Your task to perform on an android device: Search for "usb-c to usb-a" on amazon, select the first entry, add it to the cart, then select checkout. Image 0: 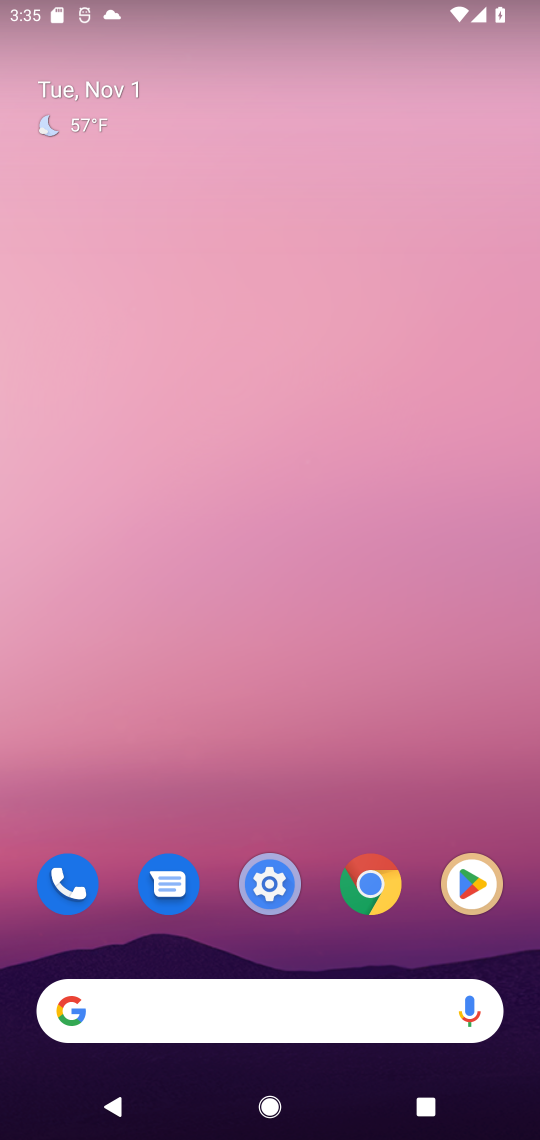
Step 0: click (102, 1015)
Your task to perform on an android device: Search for "usb-c to usb-a" on amazon, select the first entry, add it to the cart, then select checkout. Image 1: 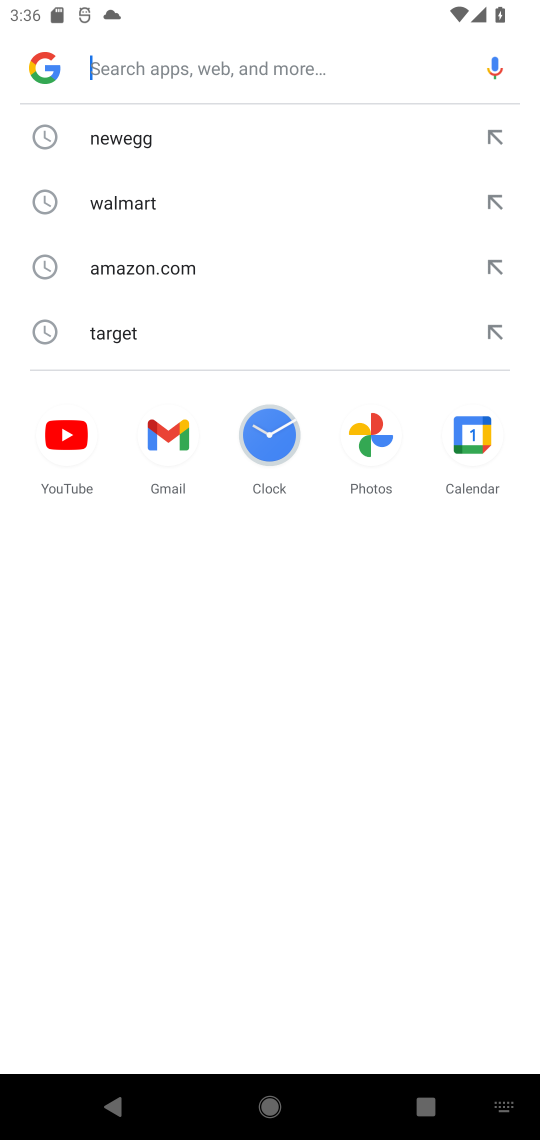
Step 1: type "amazon"
Your task to perform on an android device: Search for "usb-c to usb-a" on amazon, select the first entry, add it to the cart, then select checkout. Image 2: 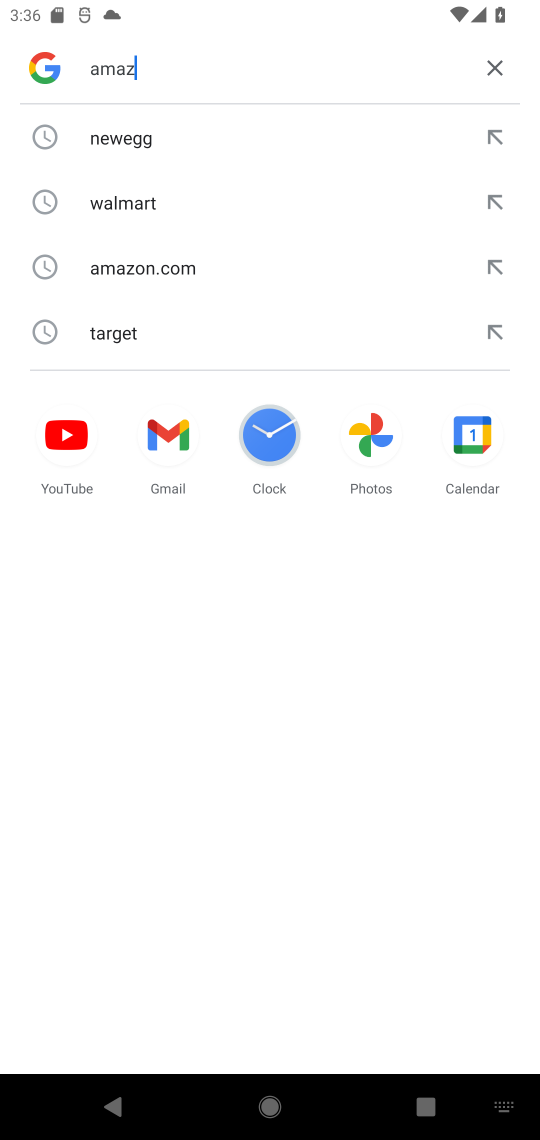
Step 2: press enter
Your task to perform on an android device: Search for "usb-c to usb-a" on amazon, select the first entry, add it to the cart, then select checkout. Image 3: 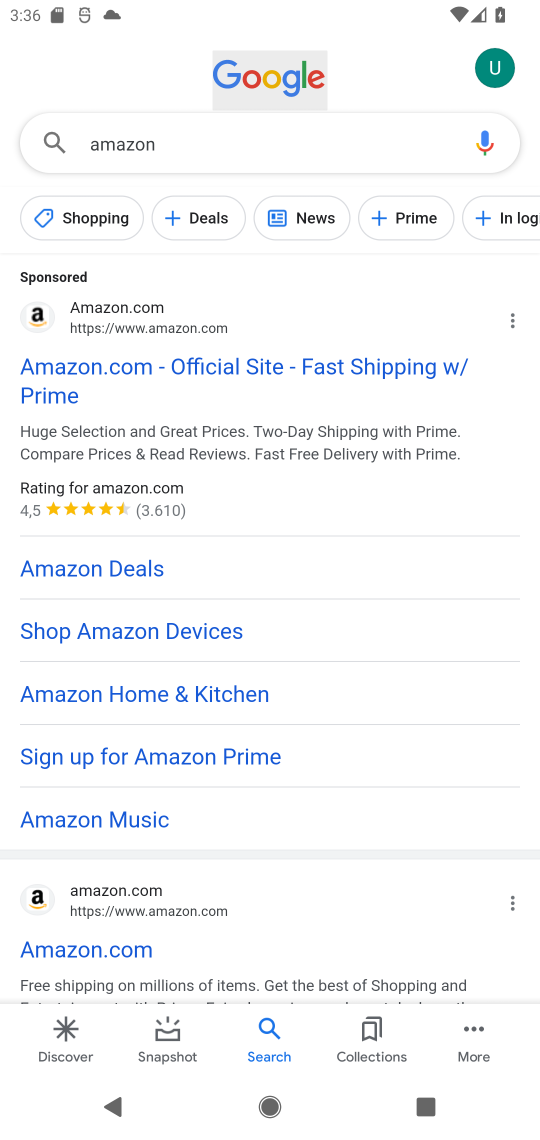
Step 3: click (126, 367)
Your task to perform on an android device: Search for "usb-c to usb-a" on amazon, select the first entry, add it to the cart, then select checkout. Image 4: 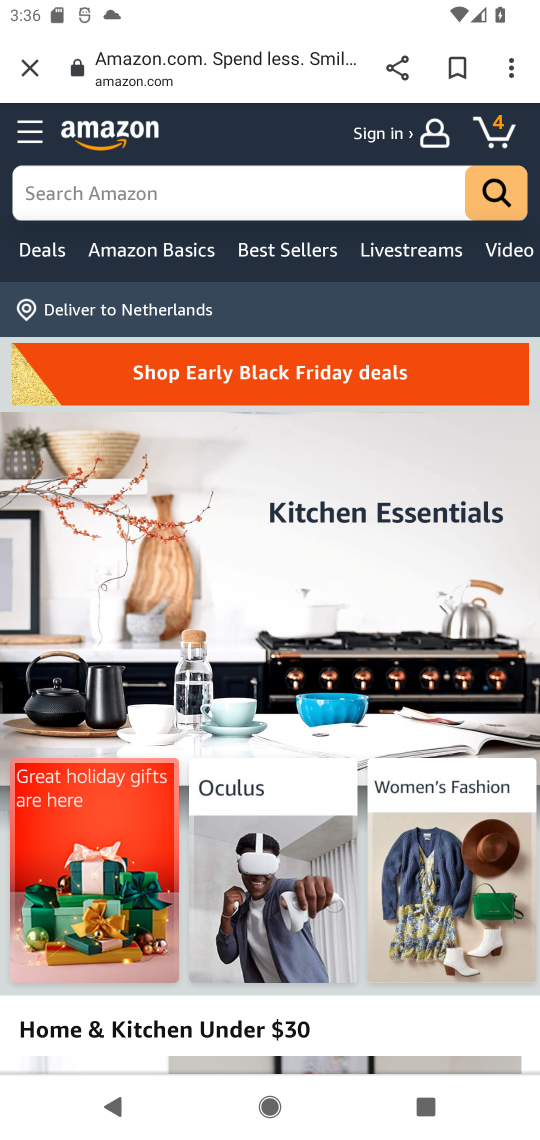
Step 4: click (96, 183)
Your task to perform on an android device: Search for "usb-c to usb-a" on amazon, select the first entry, add it to the cart, then select checkout. Image 5: 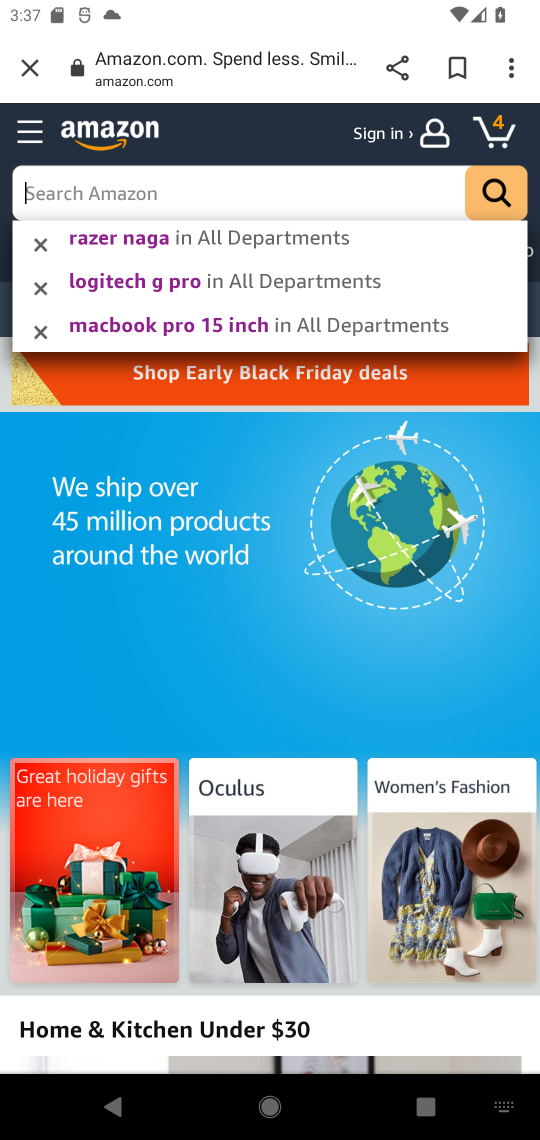
Step 5: type "usb-c to usb-a"
Your task to perform on an android device: Search for "usb-c to usb-a" on amazon, select the first entry, add it to the cart, then select checkout. Image 6: 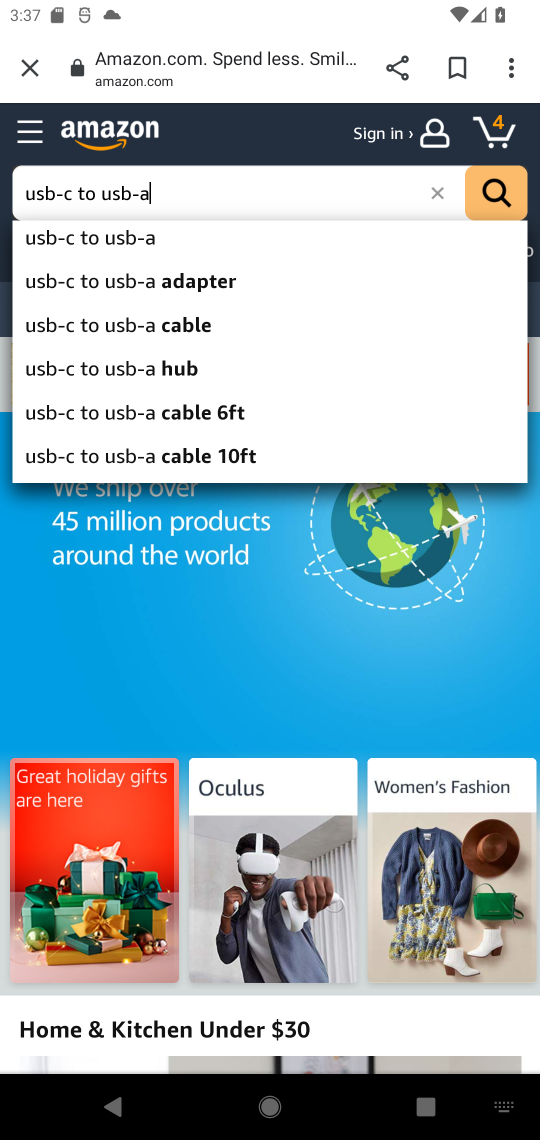
Step 6: click (496, 197)
Your task to perform on an android device: Search for "usb-c to usb-a" on amazon, select the first entry, add it to the cart, then select checkout. Image 7: 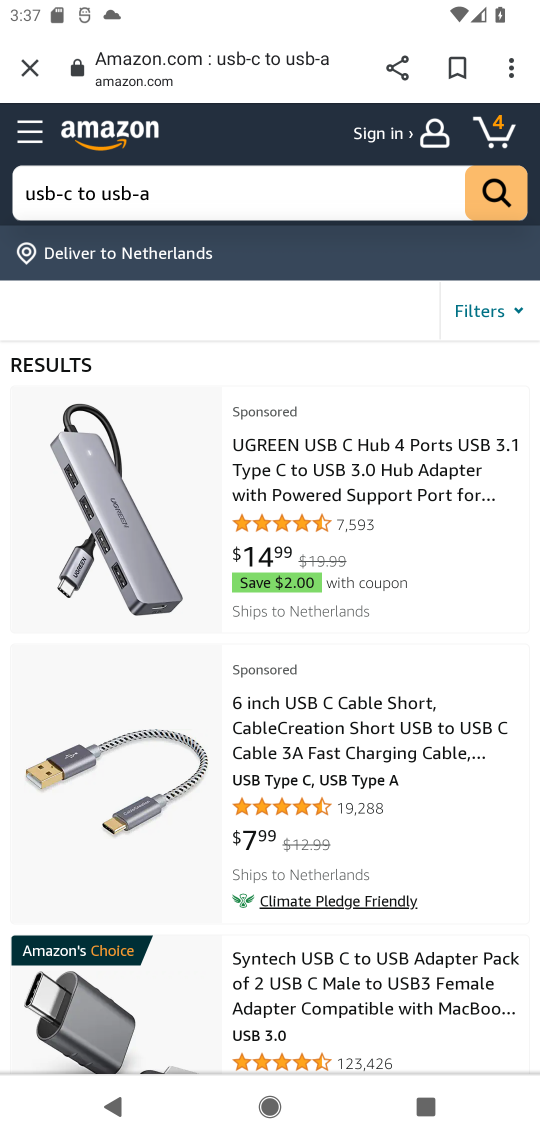
Step 7: drag from (344, 871) to (339, 596)
Your task to perform on an android device: Search for "usb-c to usb-a" on amazon, select the first entry, add it to the cart, then select checkout. Image 8: 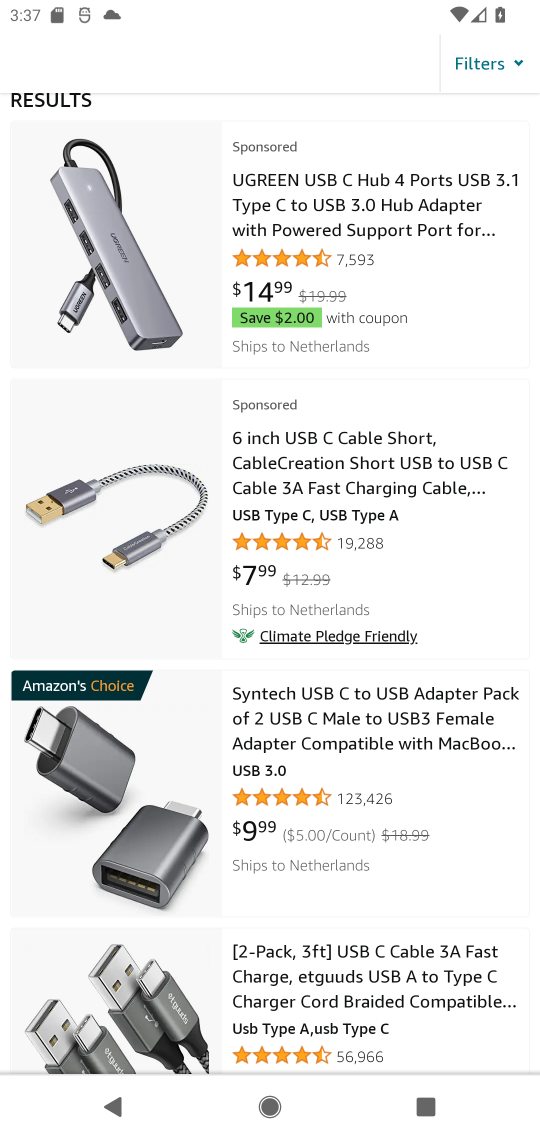
Step 8: drag from (385, 851) to (389, 567)
Your task to perform on an android device: Search for "usb-c to usb-a" on amazon, select the first entry, add it to the cart, then select checkout. Image 9: 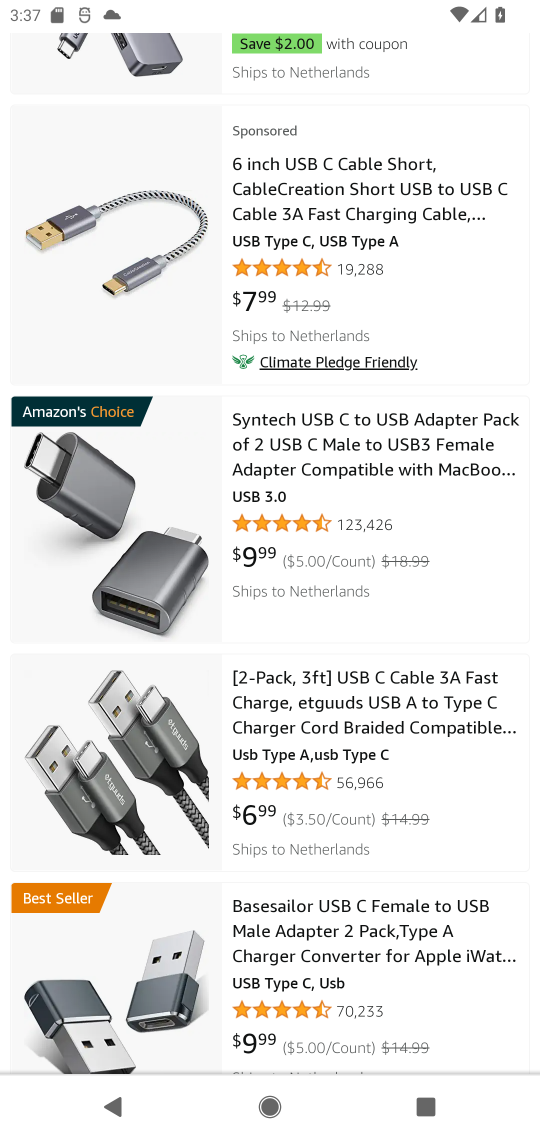
Step 9: drag from (350, 920) to (350, 584)
Your task to perform on an android device: Search for "usb-c to usb-a" on amazon, select the first entry, add it to the cart, then select checkout. Image 10: 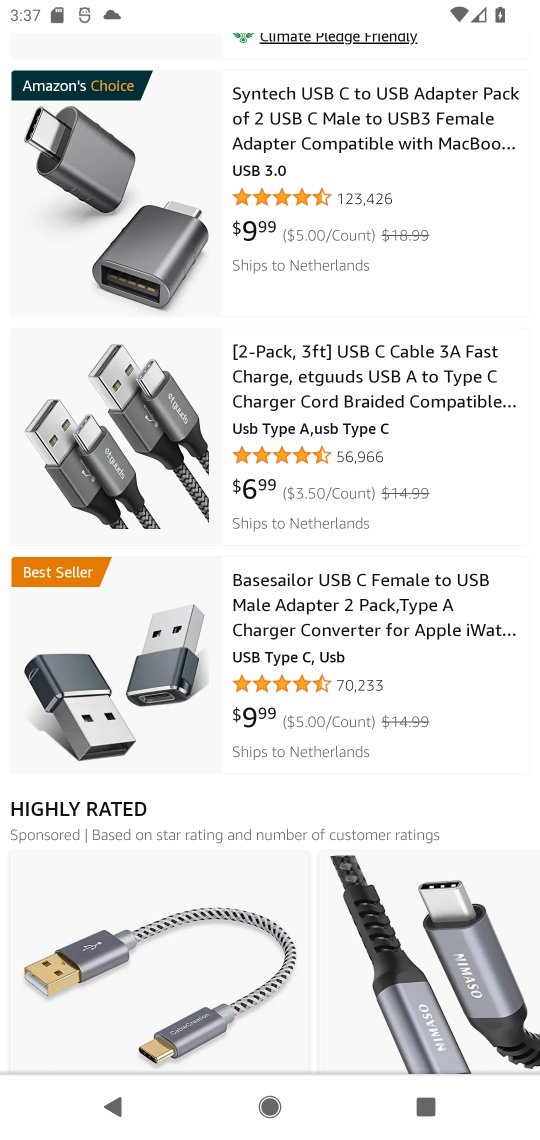
Step 10: drag from (371, 714) to (410, 433)
Your task to perform on an android device: Search for "usb-c to usb-a" on amazon, select the first entry, add it to the cart, then select checkout. Image 11: 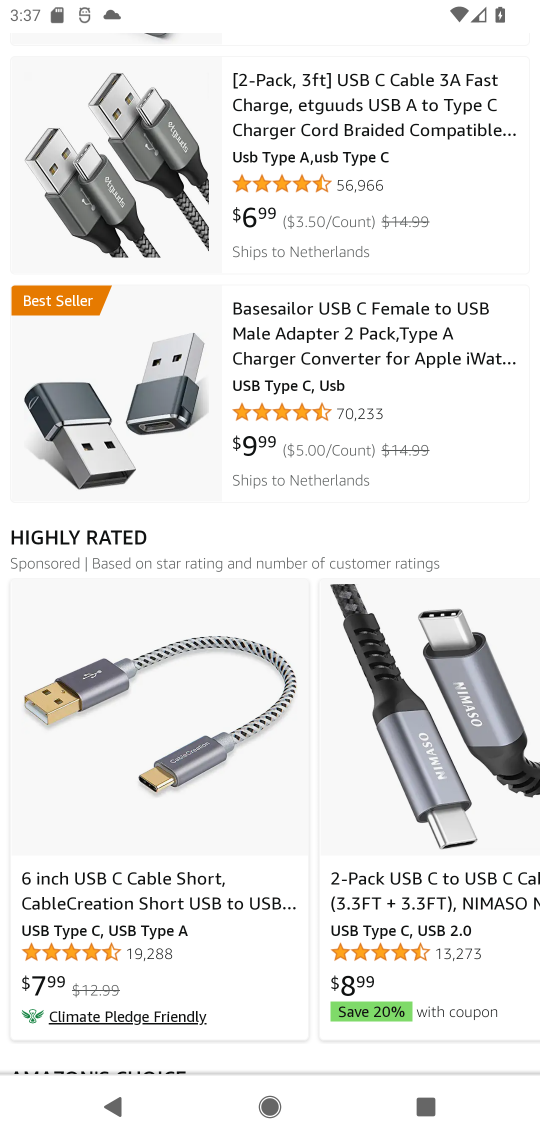
Step 11: drag from (261, 856) to (301, 268)
Your task to perform on an android device: Search for "usb-c to usb-a" on amazon, select the first entry, add it to the cart, then select checkout. Image 12: 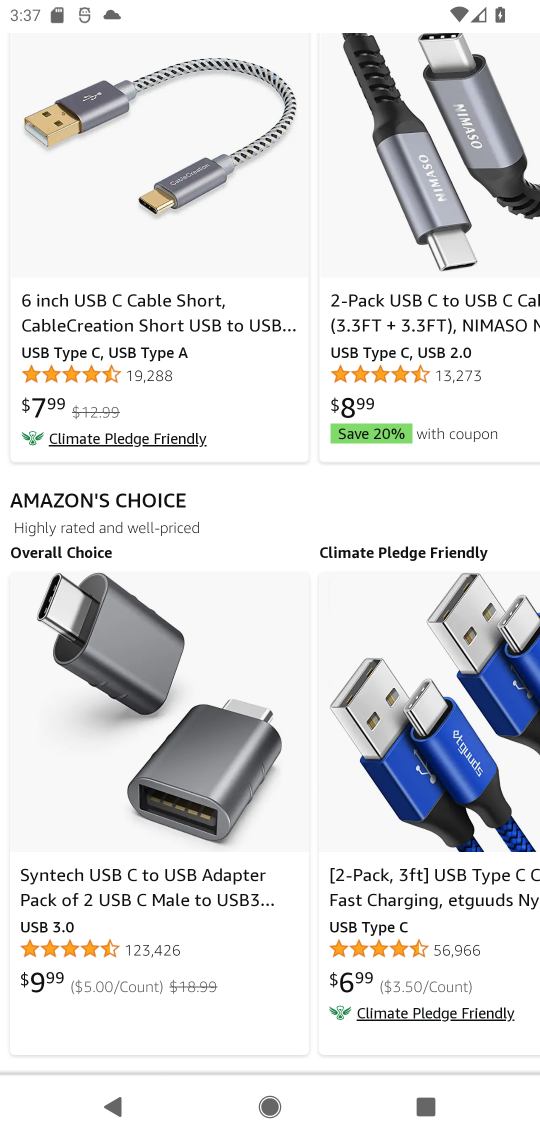
Step 12: drag from (350, 158) to (287, 709)
Your task to perform on an android device: Search for "usb-c to usb-a" on amazon, select the first entry, add it to the cart, then select checkout. Image 13: 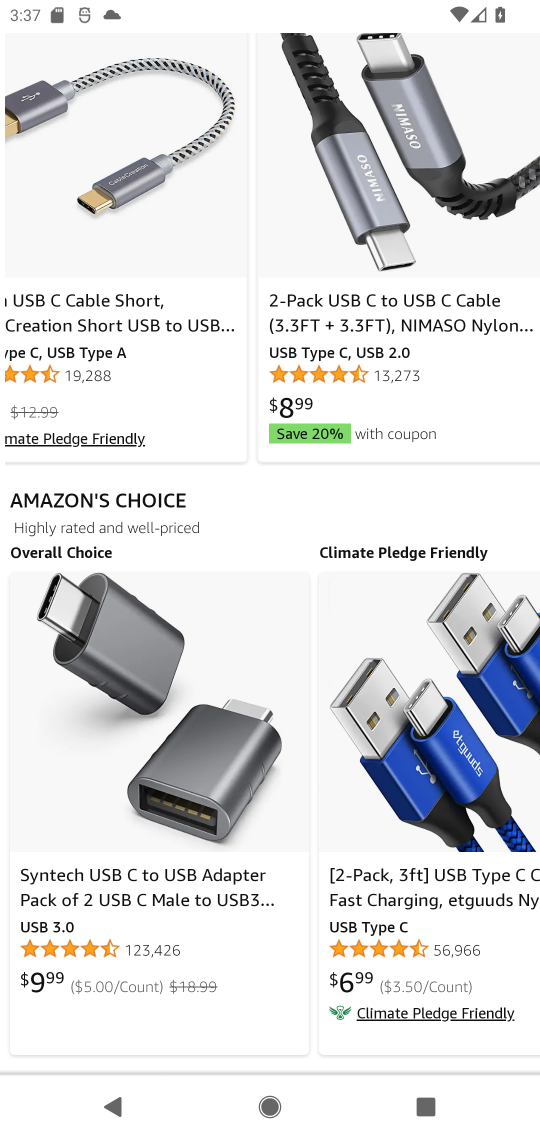
Step 13: drag from (237, 143) to (241, 801)
Your task to perform on an android device: Search for "usb-c to usb-a" on amazon, select the first entry, add it to the cart, then select checkout. Image 14: 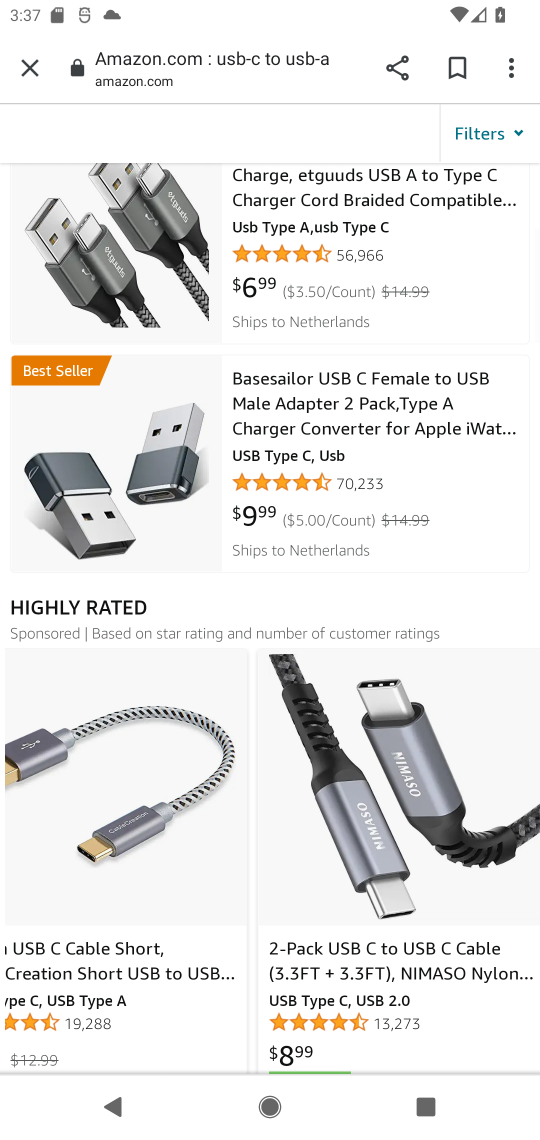
Step 14: drag from (349, 228) to (344, 719)
Your task to perform on an android device: Search for "usb-c to usb-a" on amazon, select the first entry, add it to the cart, then select checkout. Image 15: 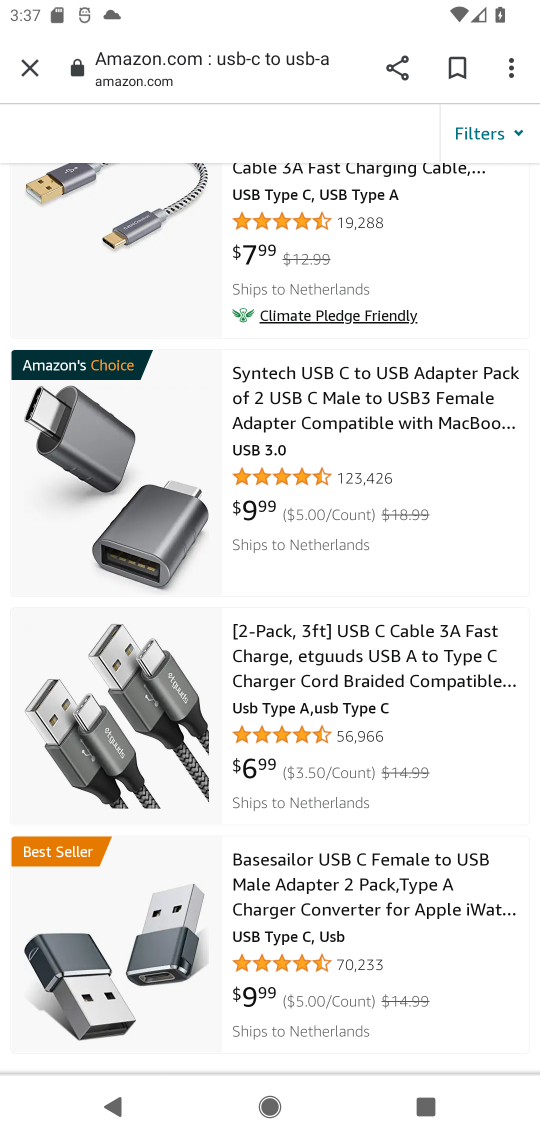
Step 15: click (376, 923)
Your task to perform on an android device: Search for "usb-c to usb-a" on amazon, select the first entry, add it to the cart, then select checkout. Image 16: 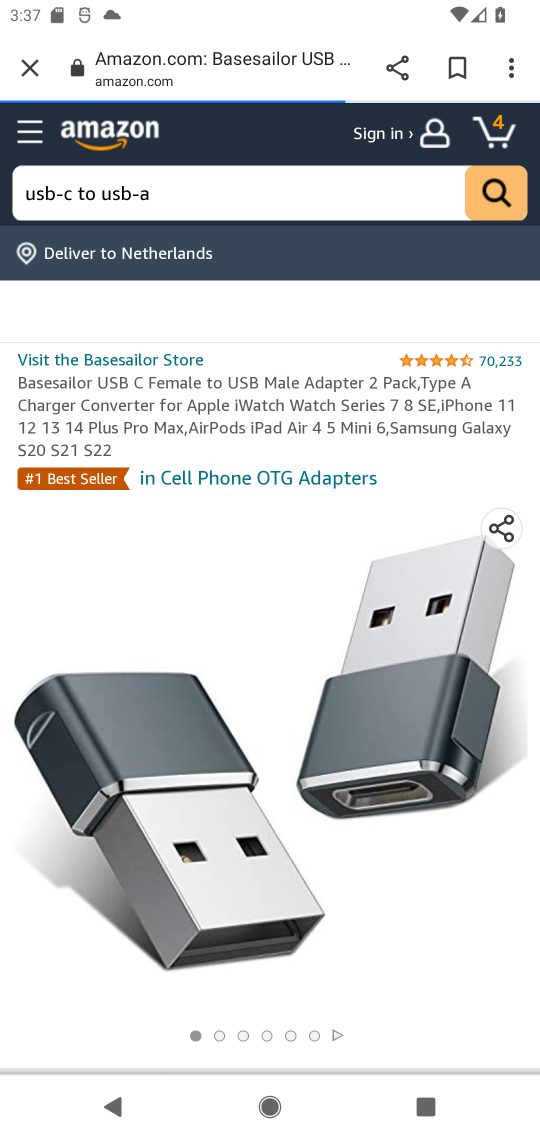
Step 16: drag from (376, 923) to (376, 343)
Your task to perform on an android device: Search for "usb-c to usb-a" on amazon, select the first entry, add it to the cart, then select checkout. Image 17: 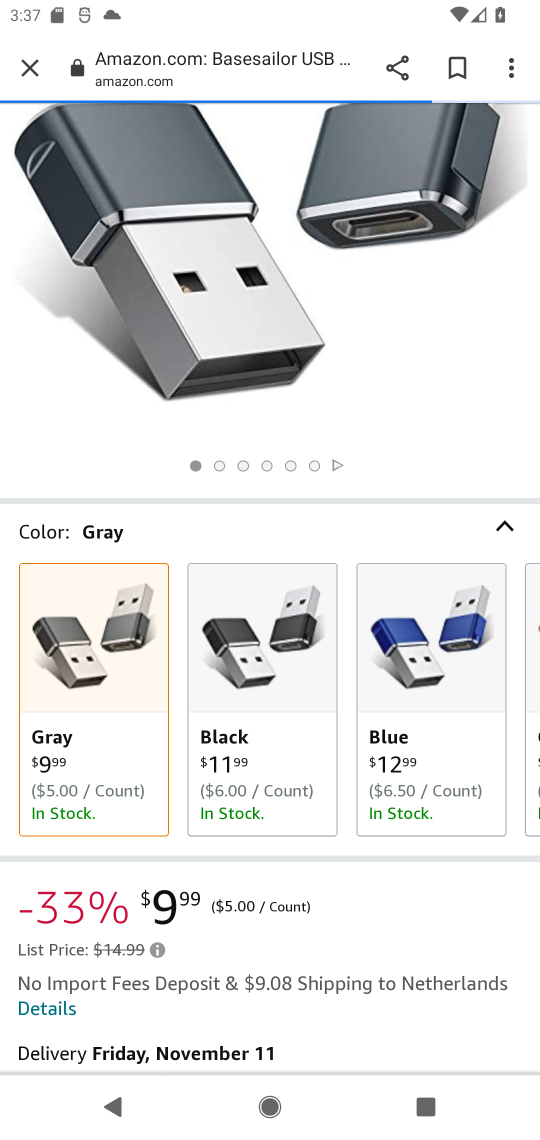
Step 17: drag from (269, 825) to (269, 340)
Your task to perform on an android device: Search for "usb-c to usb-a" on amazon, select the first entry, add it to the cart, then select checkout. Image 18: 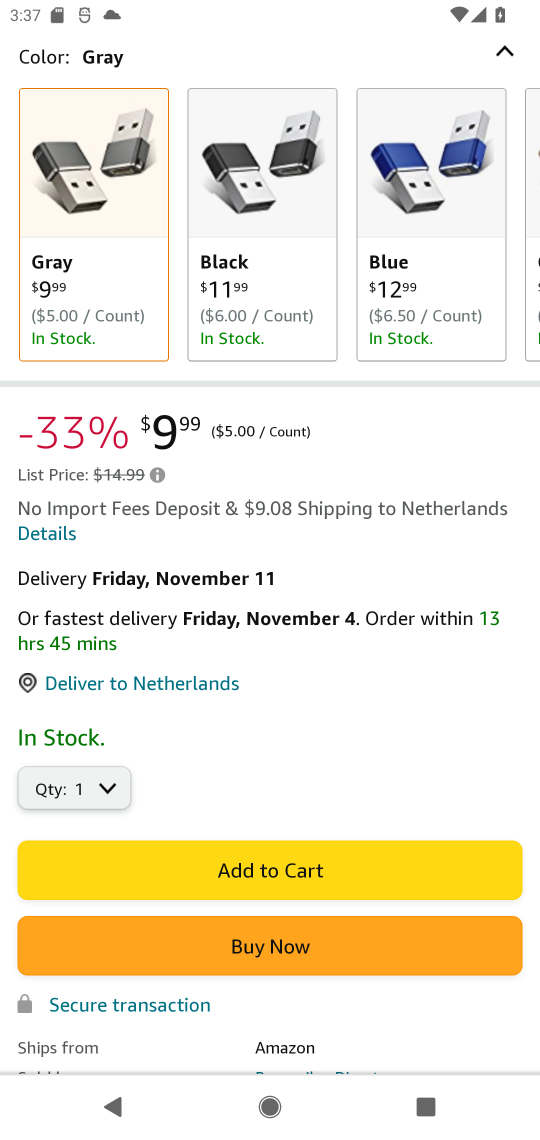
Step 18: click (313, 862)
Your task to perform on an android device: Search for "usb-c to usb-a" on amazon, select the first entry, add it to the cart, then select checkout. Image 19: 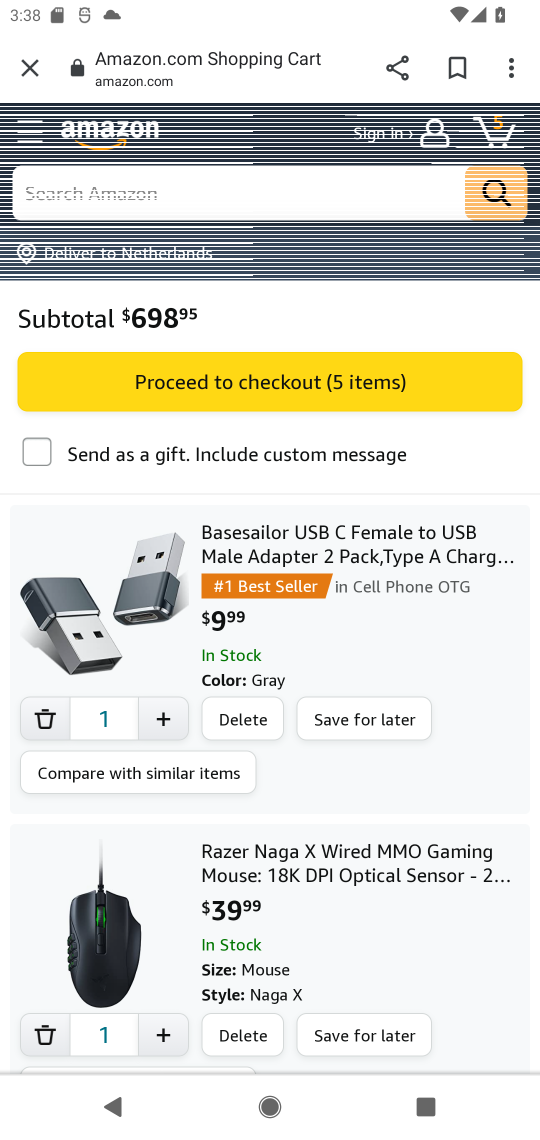
Step 19: click (300, 372)
Your task to perform on an android device: Search for "usb-c to usb-a" on amazon, select the first entry, add it to the cart, then select checkout. Image 20: 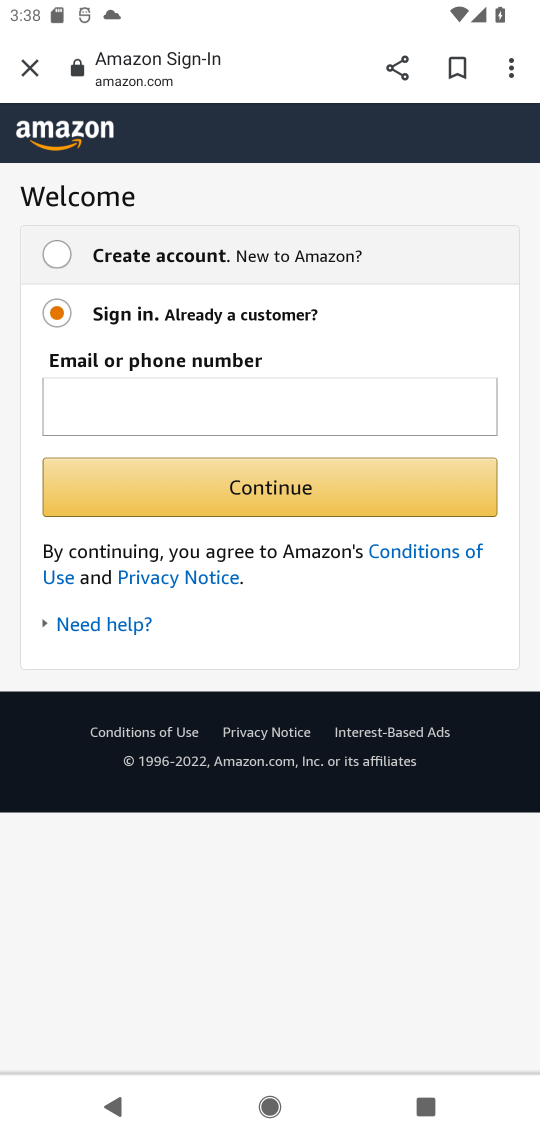
Step 20: task complete